Your task to perform on an android device: Go to accessibility settings Image 0: 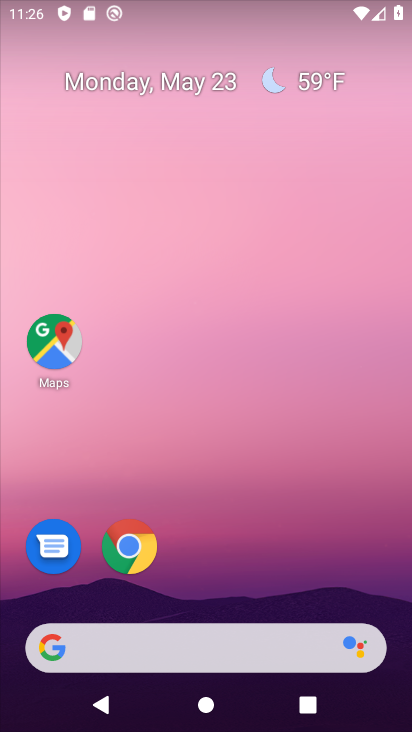
Step 0: drag from (178, 580) to (243, 227)
Your task to perform on an android device: Go to accessibility settings Image 1: 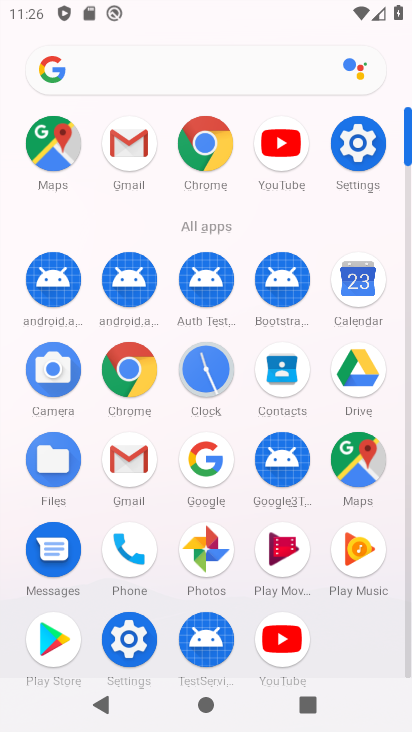
Step 1: click (368, 161)
Your task to perform on an android device: Go to accessibility settings Image 2: 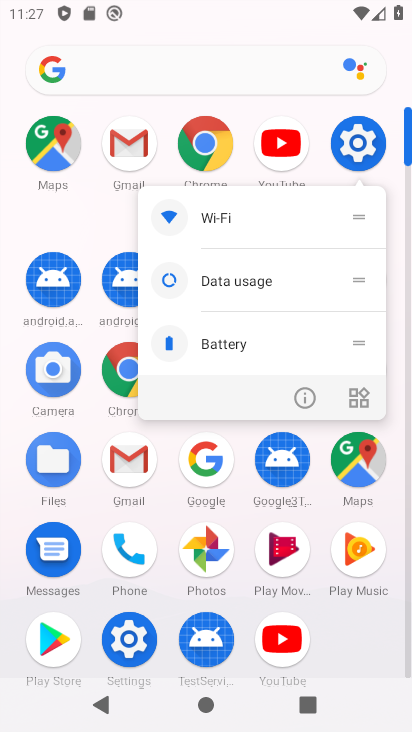
Step 2: click (306, 398)
Your task to perform on an android device: Go to accessibility settings Image 3: 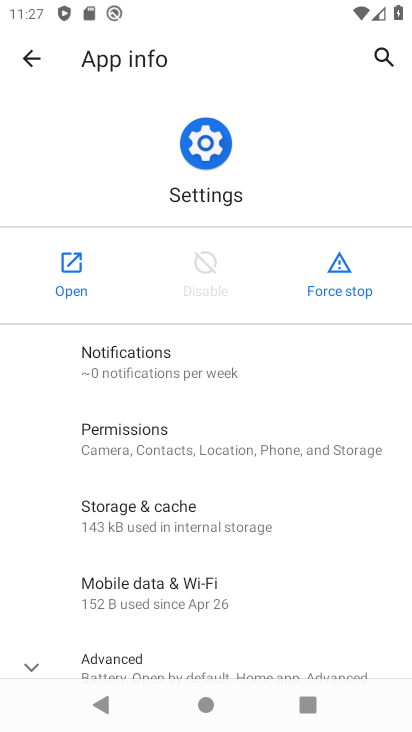
Step 3: click (50, 273)
Your task to perform on an android device: Go to accessibility settings Image 4: 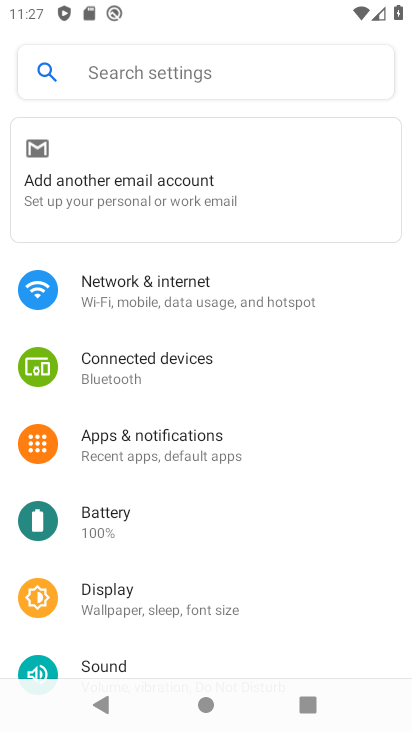
Step 4: drag from (159, 574) to (326, 3)
Your task to perform on an android device: Go to accessibility settings Image 5: 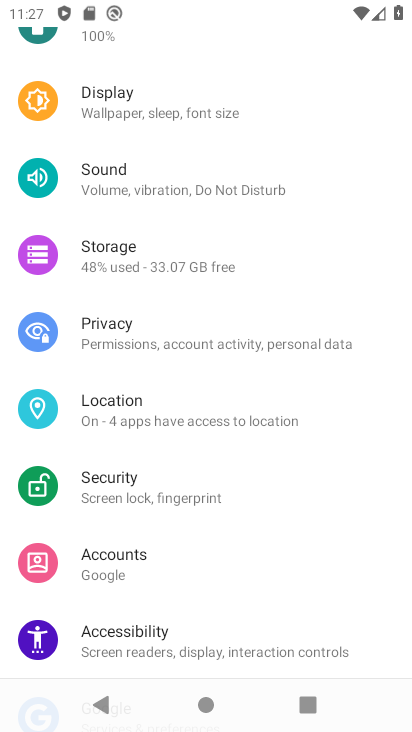
Step 5: drag from (169, 535) to (271, 67)
Your task to perform on an android device: Go to accessibility settings Image 6: 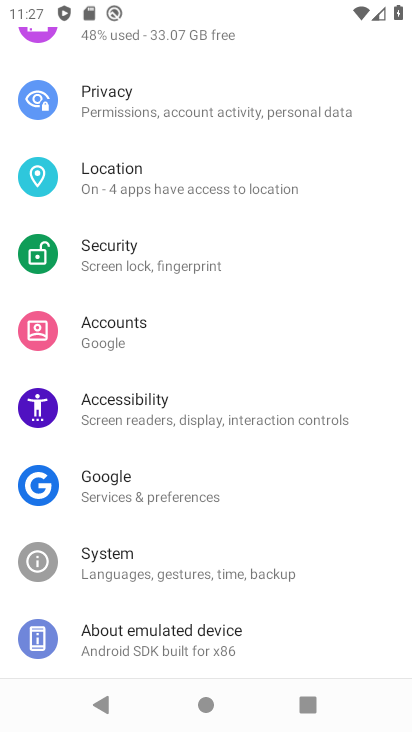
Step 6: click (151, 399)
Your task to perform on an android device: Go to accessibility settings Image 7: 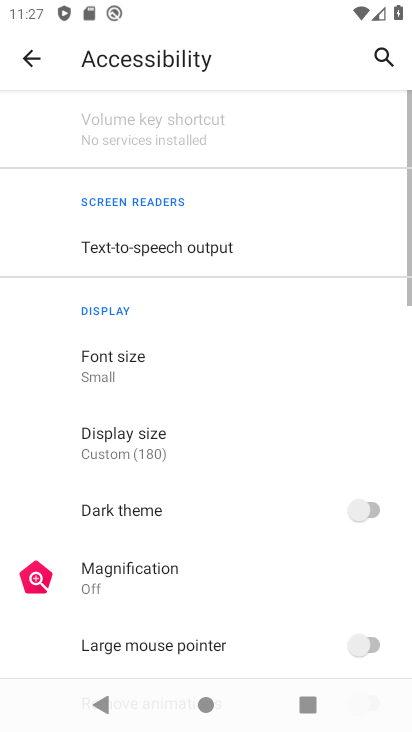
Step 7: task complete